Your task to perform on an android device: Open Google Maps and go to "Timeline" Image 0: 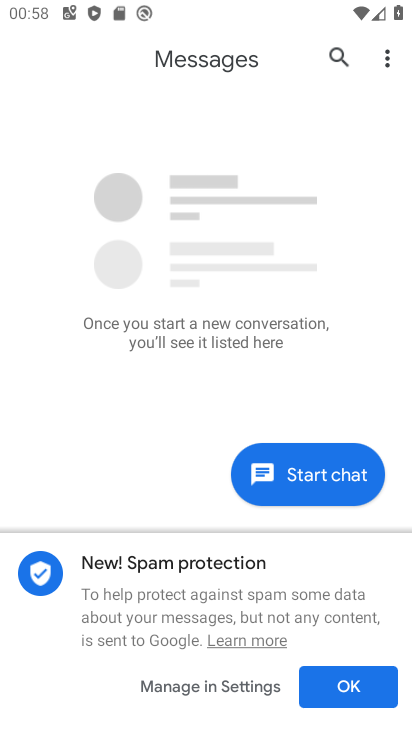
Step 0: press home button
Your task to perform on an android device: Open Google Maps and go to "Timeline" Image 1: 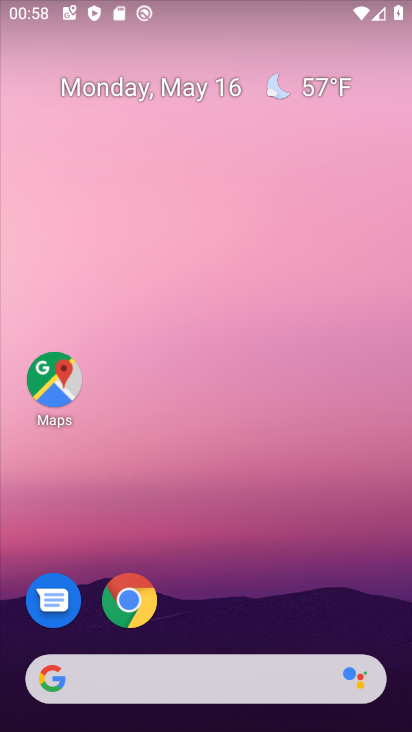
Step 1: click (46, 368)
Your task to perform on an android device: Open Google Maps and go to "Timeline" Image 2: 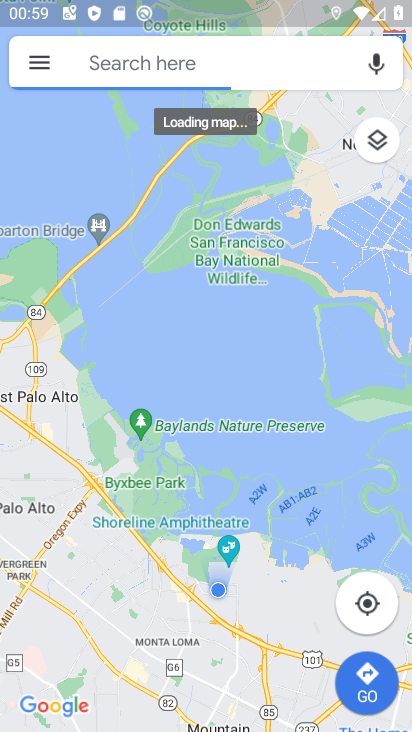
Step 2: click (35, 62)
Your task to perform on an android device: Open Google Maps and go to "Timeline" Image 3: 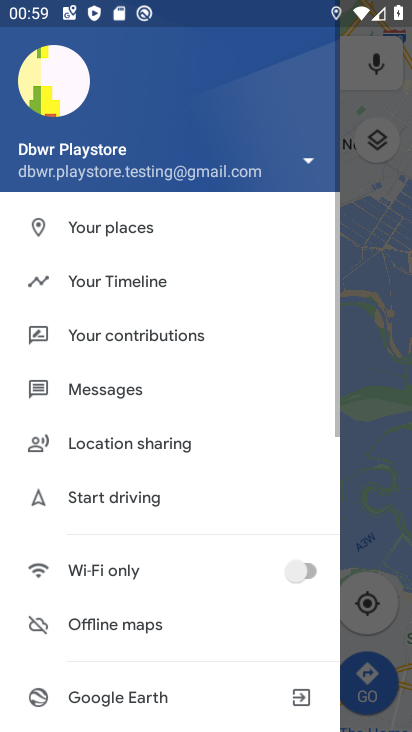
Step 3: click (176, 278)
Your task to perform on an android device: Open Google Maps and go to "Timeline" Image 4: 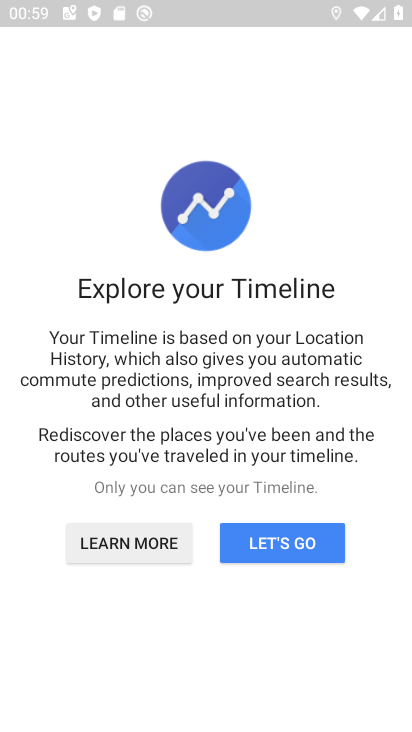
Step 4: click (276, 556)
Your task to perform on an android device: Open Google Maps and go to "Timeline" Image 5: 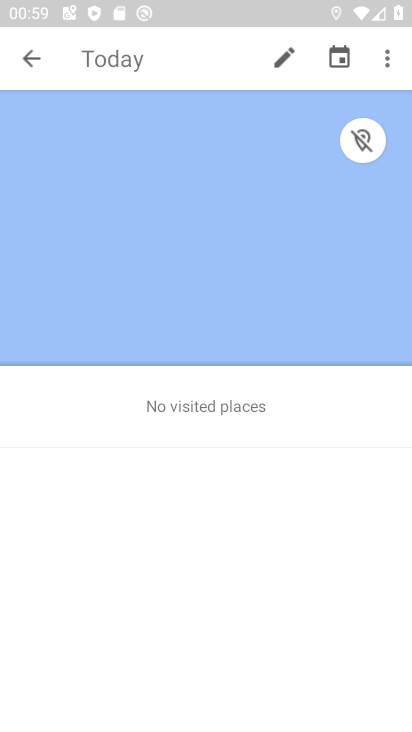
Step 5: task complete